Your task to perform on an android device: Go to Reddit.com Image 0: 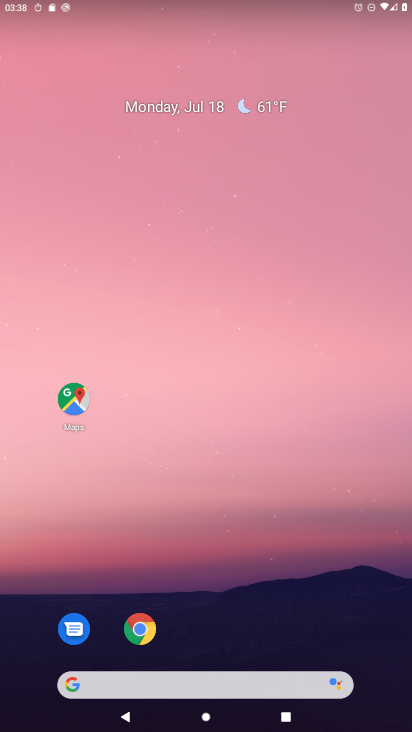
Step 0: click (141, 630)
Your task to perform on an android device: Go to Reddit.com Image 1: 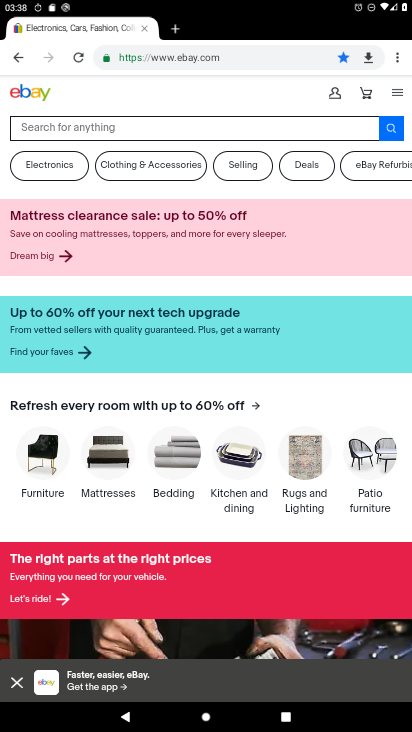
Step 1: click (275, 62)
Your task to perform on an android device: Go to Reddit.com Image 2: 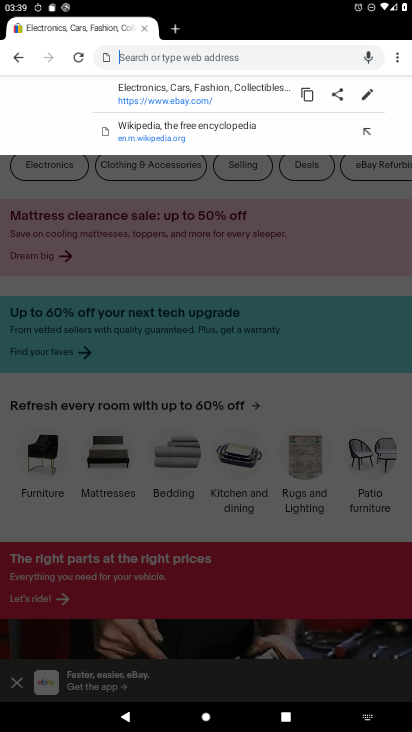
Step 2: type "Reddit.com"
Your task to perform on an android device: Go to Reddit.com Image 3: 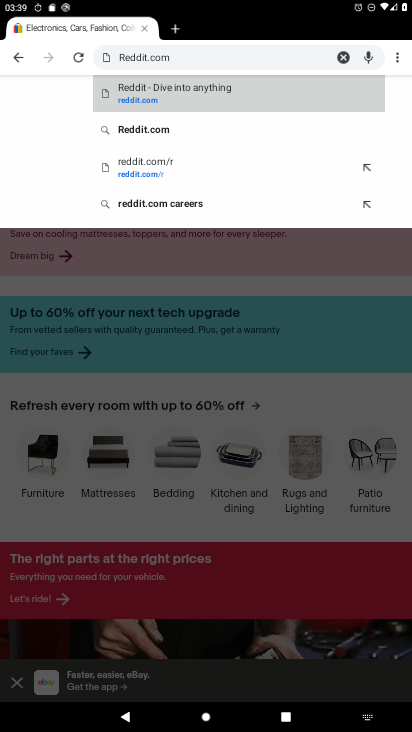
Step 3: click (154, 131)
Your task to perform on an android device: Go to Reddit.com Image 4: 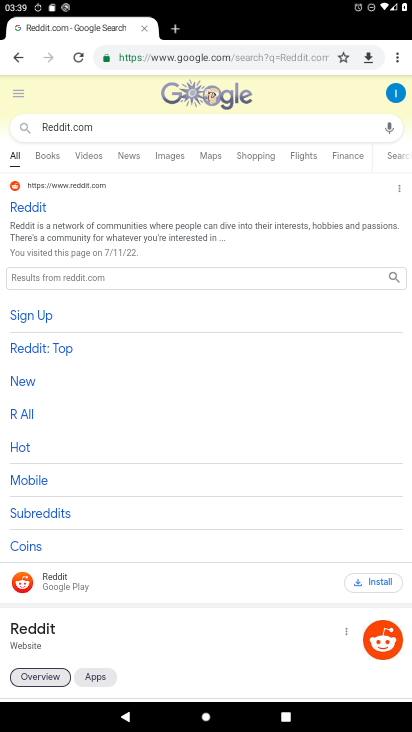
Step 4: click (37, 208)
Your task to perform on an android device: Go to Reddit.com Image 5: 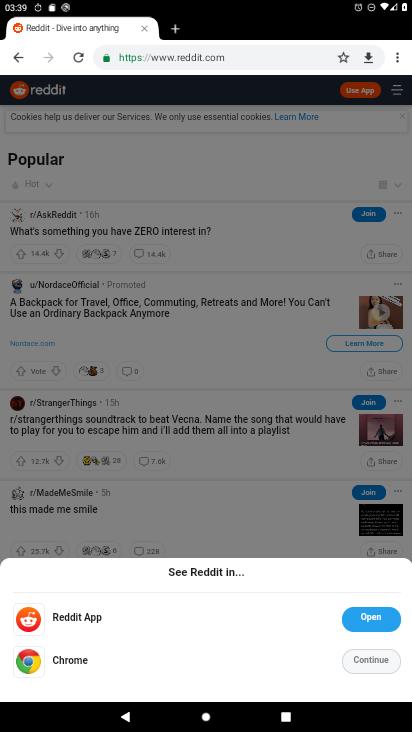
Step 5: click (377, 658)
Your task to perform on an android device: Go to Reddit.com Image 6: 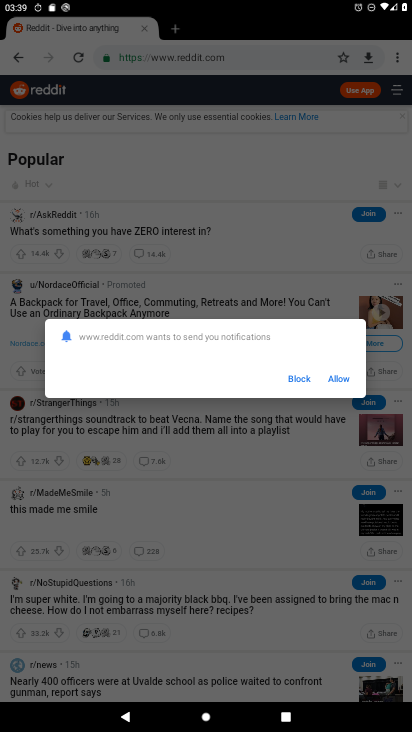
Step 6: click (339, 384)
Your task to perform on an android device: Go to Reddit.com Image 7: 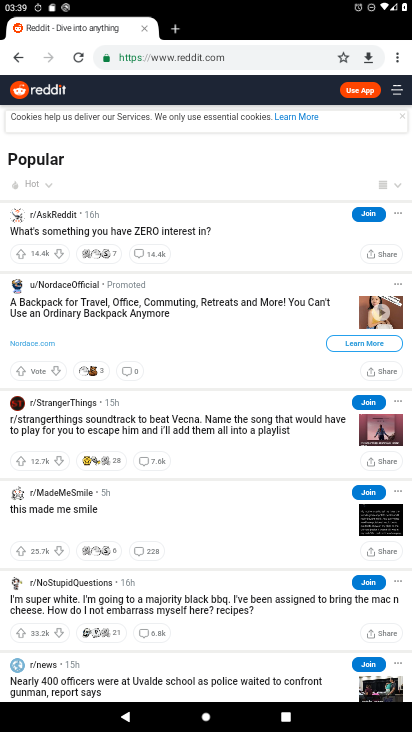
Step 7: task complete